Your task to perform on an android device: uninstall "LiveIn - Share Your Moment" Image 0: 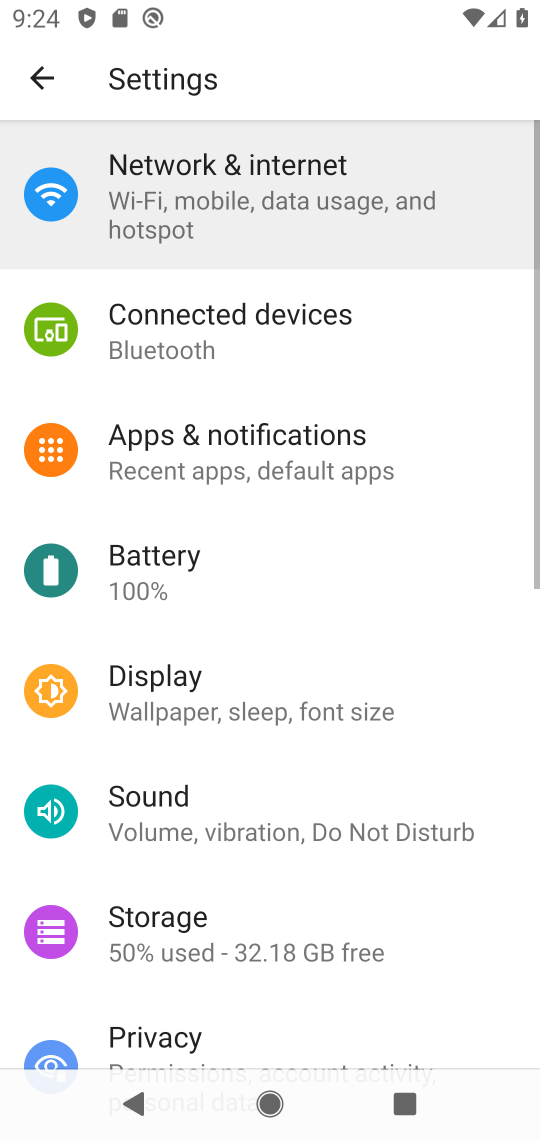
Step 0: press home button
Your task to perform on an android device: uninstall "LiveIn - Share Your Moment" Image 1: 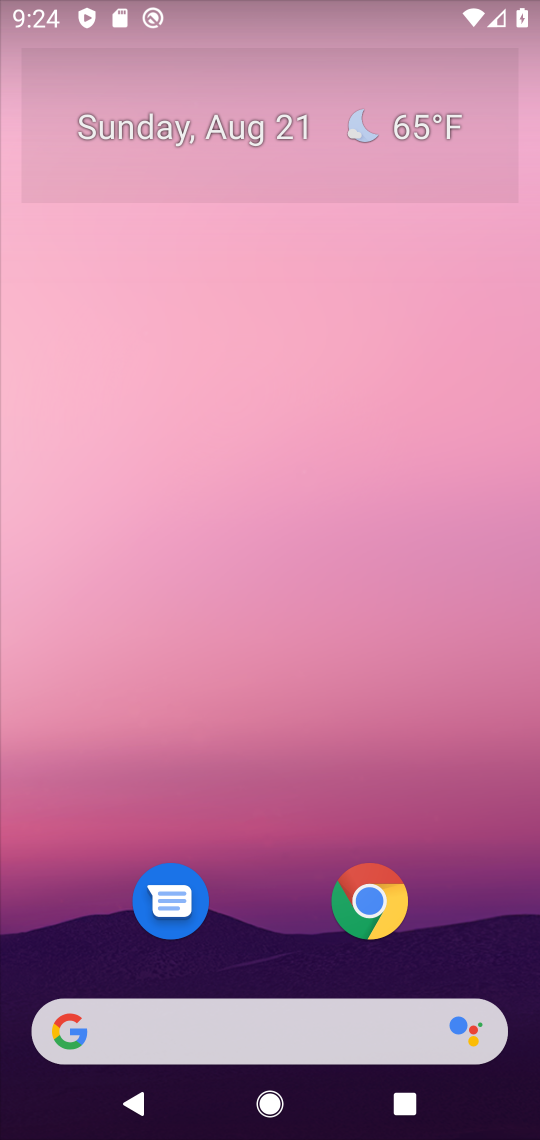
Step 1: drag from (466, 928) to (484, 109)
Your task to perform on an android device: uninstall "LiveIn - Share Your Moment" Image 2: 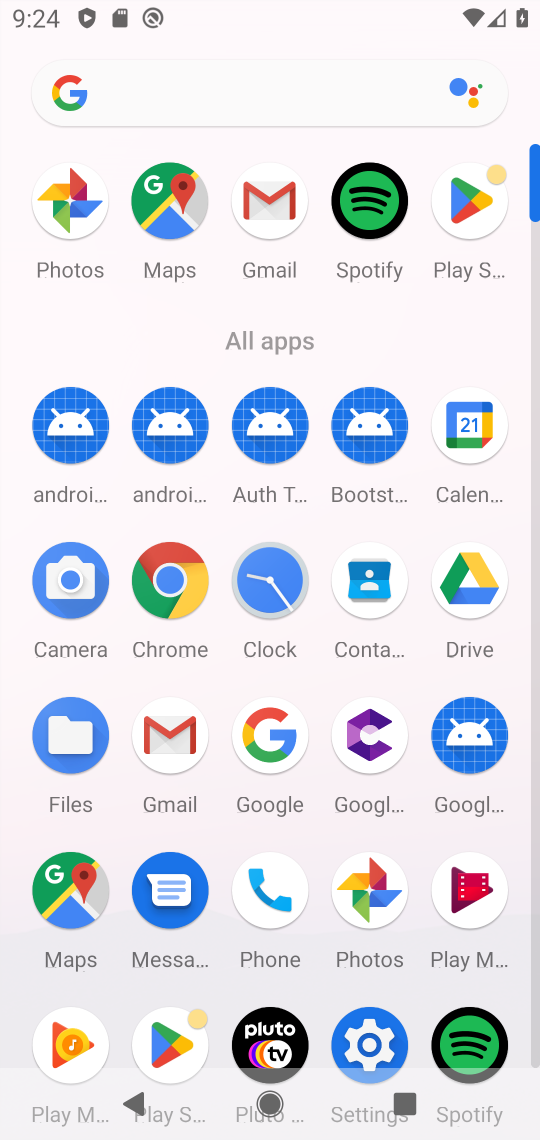
Step 2: click (477, 203)
Your task to perform on an android device: uninstall "LiveIn - Share Your Moment" Image 3: 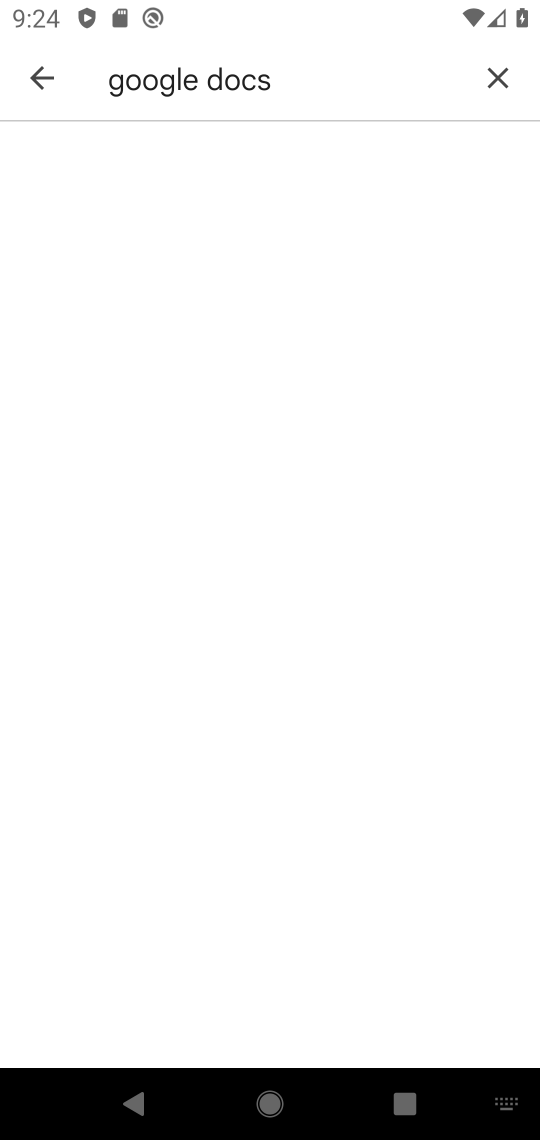
Step 3: press back button
Your task to perform on an android device: uninstall "LiveIn - Share Your Moment" Image 4: 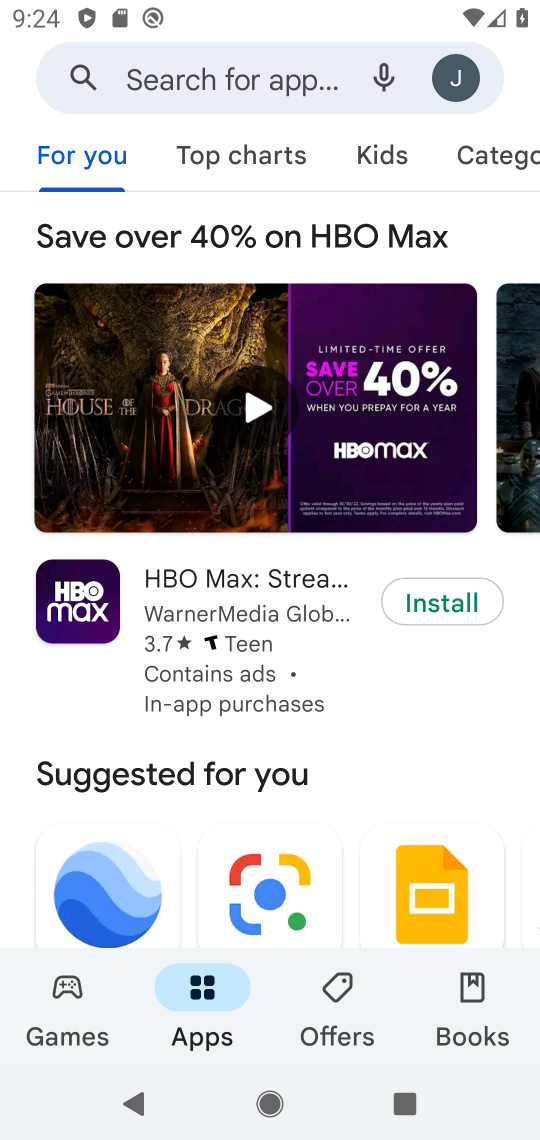
Step 4: click (189, 75)
Your task to perform on an android device: uninstall "LiveIn - Share Your Moment" Image 5: 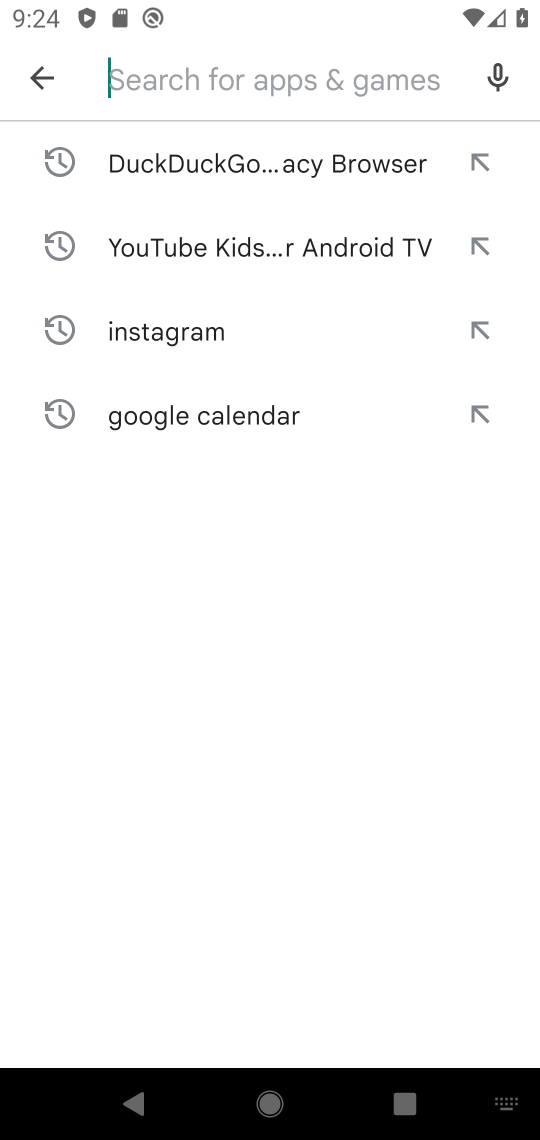
Step 5: type "livein"
Your task to perform on an android device: uninstall "LiveIn - Share Your Moment" Image 6: 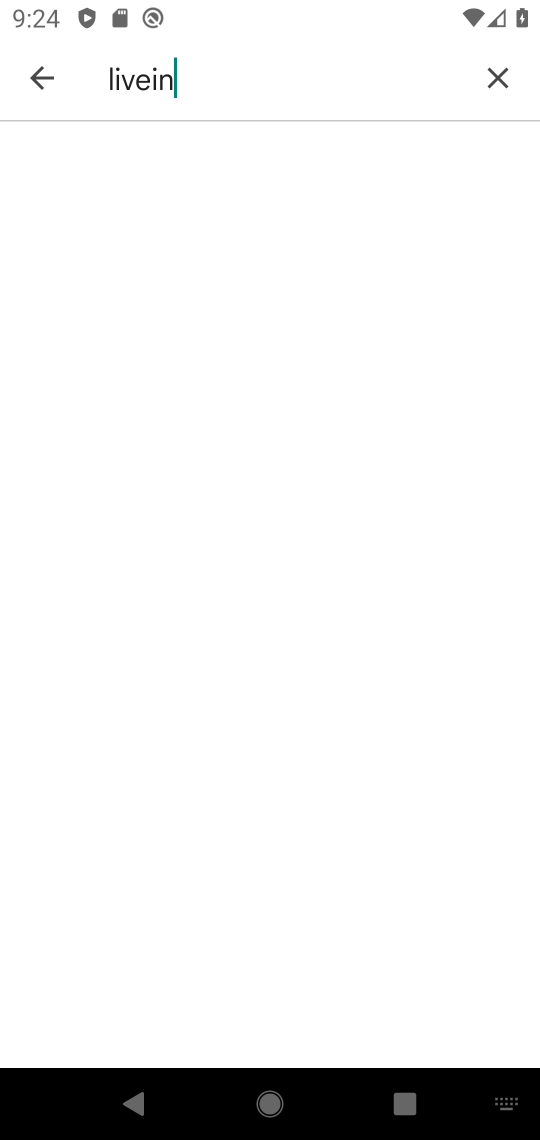
Step 6: type "LiveIn - Share Your Moment"
Your task to perform on an android device: uninstall "LiveIn - Share Your Moment" Image 7: 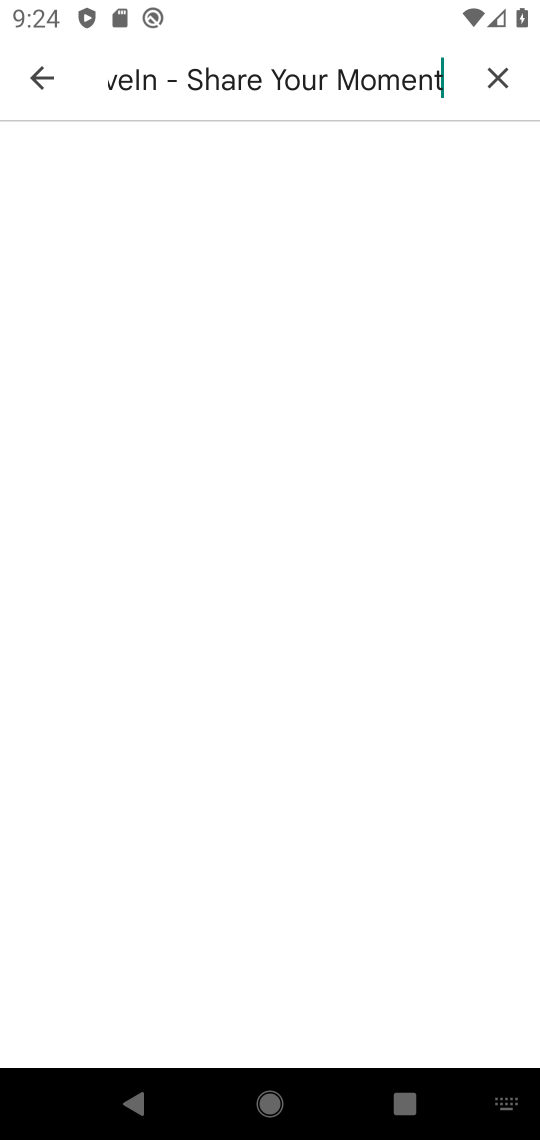
Step 7: press enter
Your task to perform on an android device: uninstall "LiveIn - Share Your Moment" Image 8: 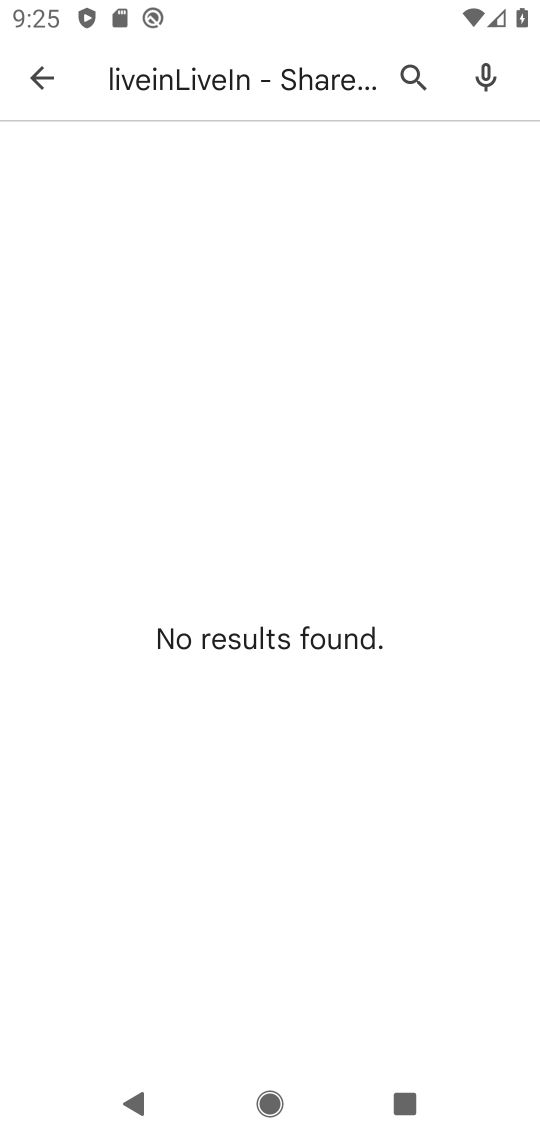
Step 8: task complete